Your task to perform on an android device: check out phone information Image 0: 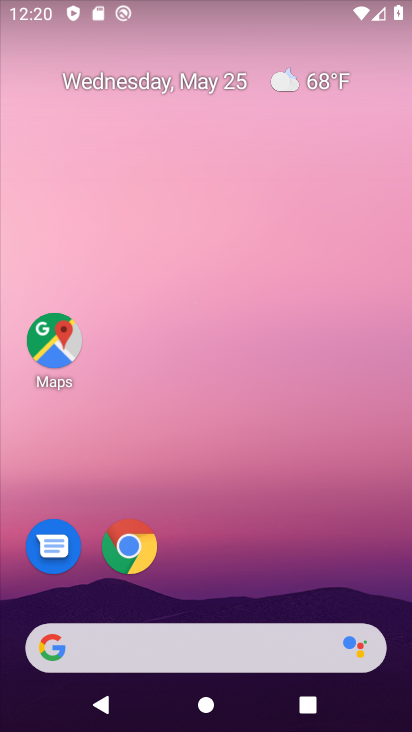
Step 0: drag from (356, 562) to (309, 146)
Your task to perform on an android device: check out phone information Image 1: 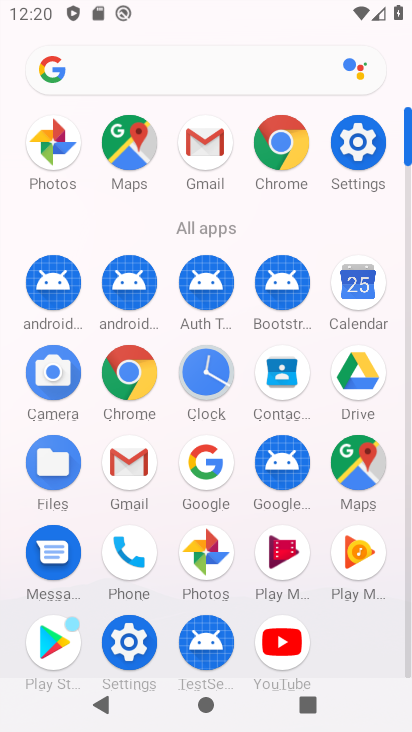
Step 1: click (360, 188)
Your task to perform on an android device: check out phone information Image 2: 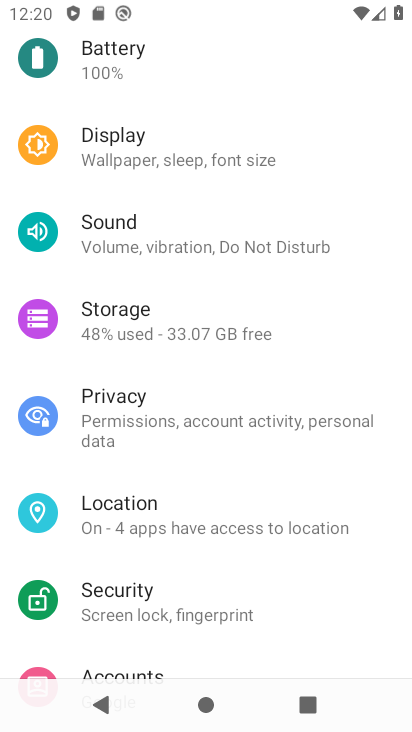
Step 2: click (220, 403)
Your task to perform on an android device: check out phone information Image 3: 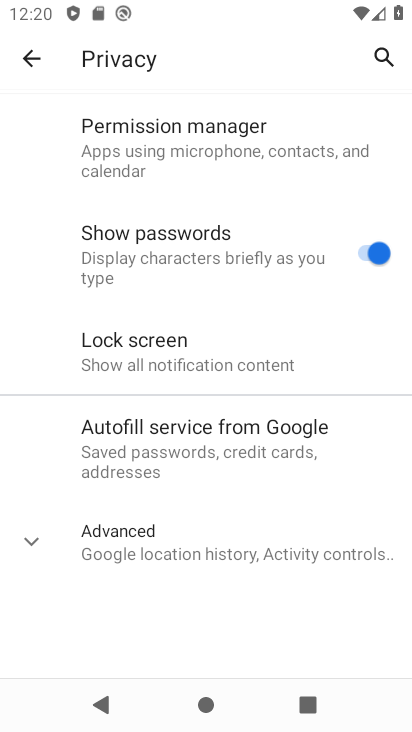
Step 3: click (25, 78)
Your task to perform on an android device: check out phone information Image 4: 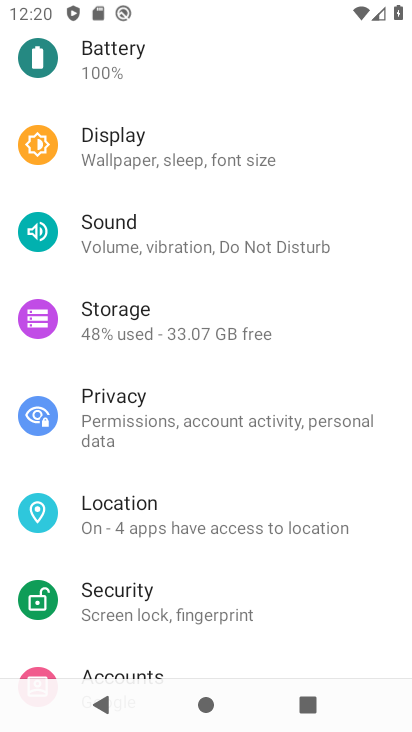
Step 4: task complete